Your task to perform on an android device: see tabs open on other devices in the chrome app Image 0: 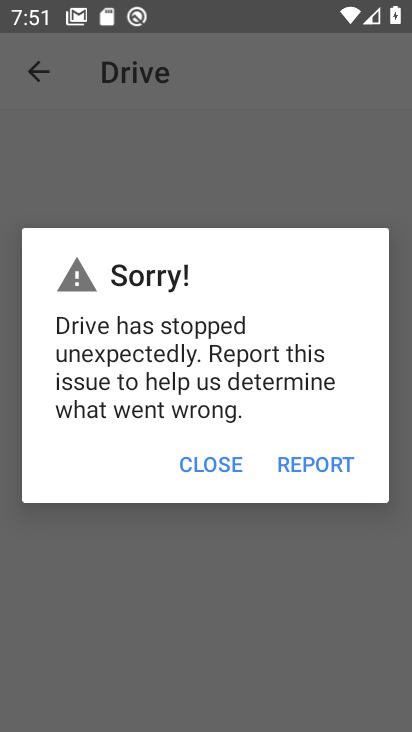
Step 0: press back button
Your task to perform on an android device: see tabs open on other devices in the chrome app Image 1: 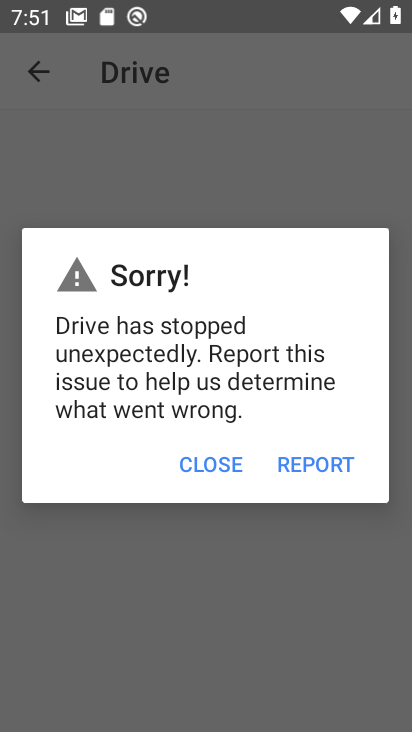
Step 1: press home button
Your task to perform on an android device: see tabs open on other devices in the chrome app Image 2: 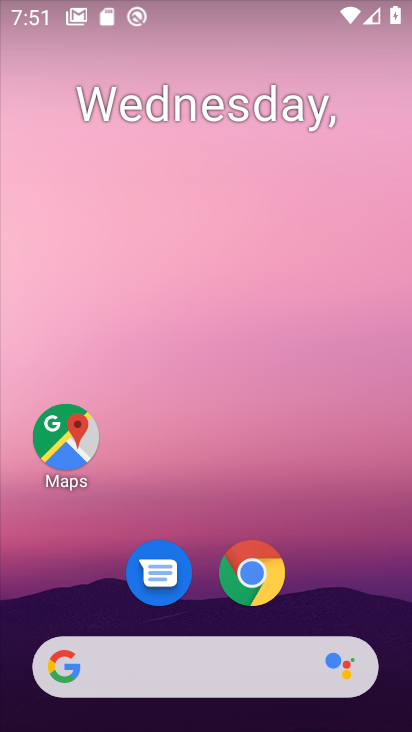
Step 2: click (256, 576)
Your task to perform on an android device: see tabs open on other devices in the chrome app Image 3: 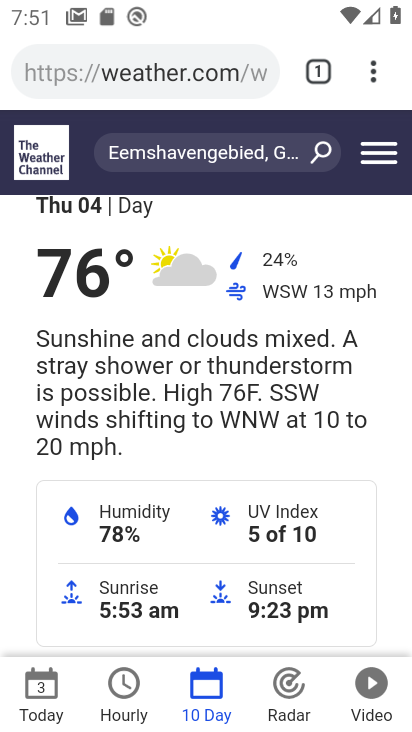
Step 3: click (373, 69)
Your task to perform on an android device: see tabs open on other devices in the chrome app Image 4: 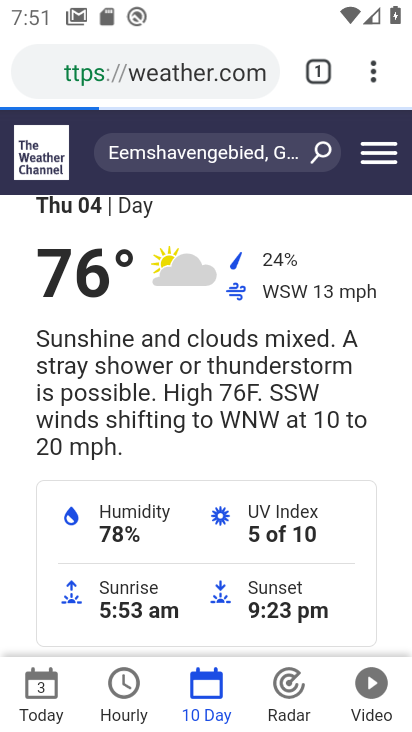
Step 4: click (373, 69)
Your task to perform on an android device: see tabs open on other devices in the chrome app Image 5: 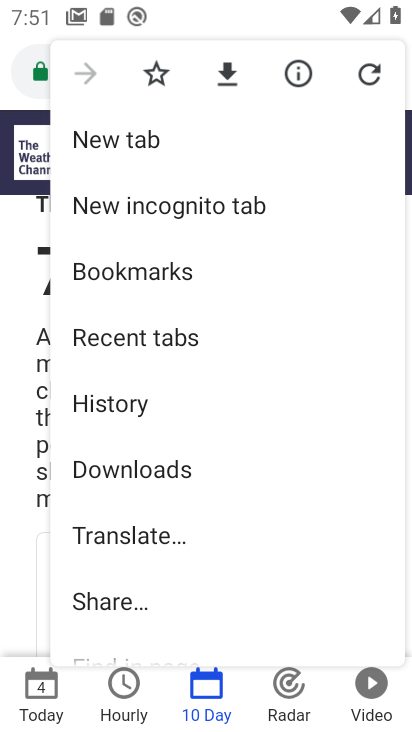
Step 5: drag from (248, 548) to (253, 403)
Your task to perform on an android device: see tabs open on other devices in the chrome app Image 6: 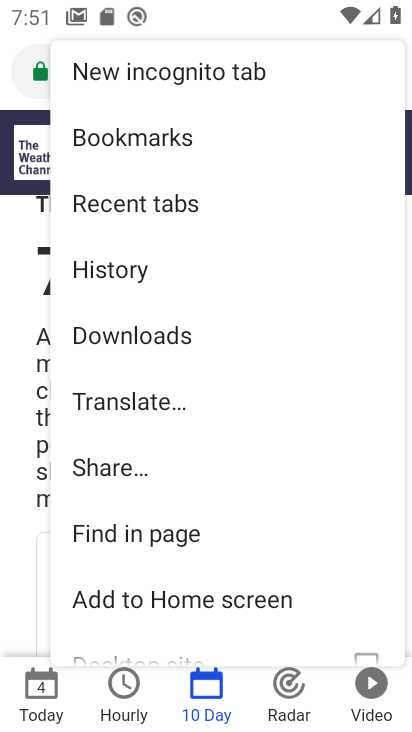
Step 6: click (174, 209)
Your task to perform on an android device: see tabs open on other devices in the chrome app Image 7: 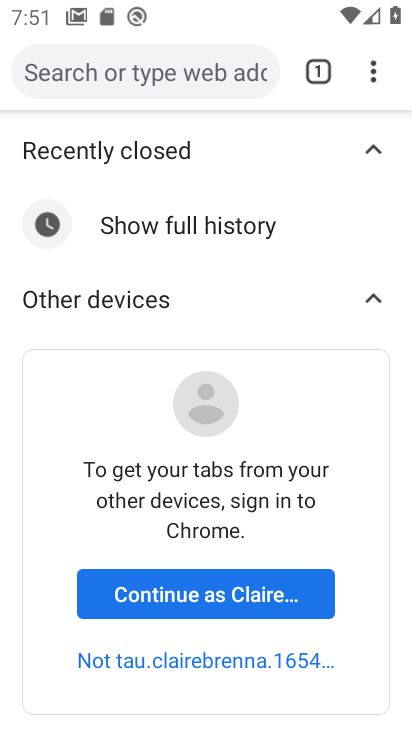
Step 7: click (204, 596)
Your task to perform on an android device: see tabs open on other devices in the chrome app Image 8: 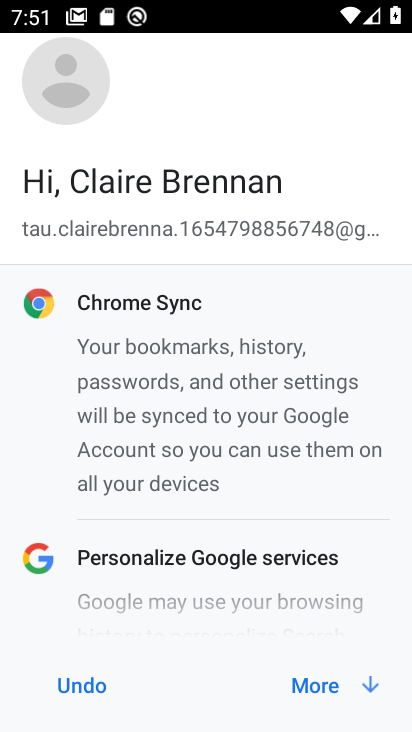
Step 8: drag from (196, 537) to (190, 203)
Your task to perform on an android device: see tabs open on other devices in the chrome app Image 9: 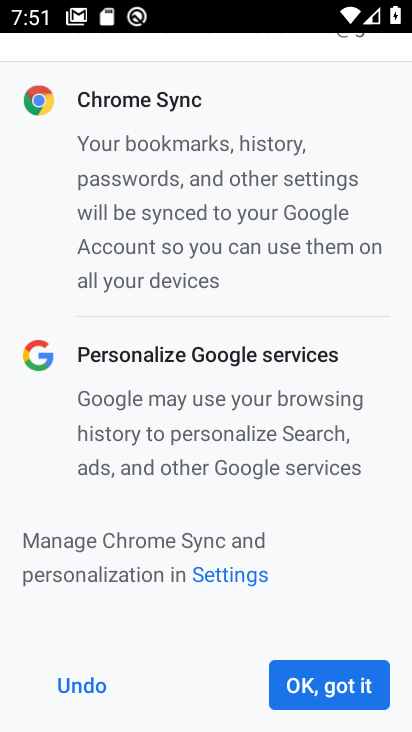
Step 9: click (306, 677)
Your task to perform on an android device: see tabs open on other devices in the chrome app Image 10: 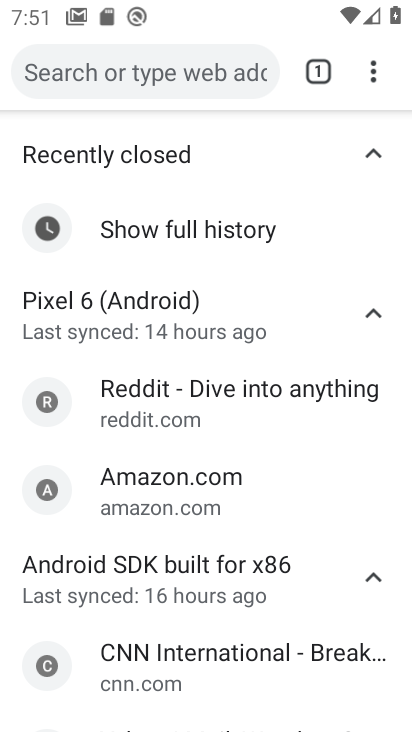
Step 10: task complete